Your task to perform on an android device: open app "McDonald's" Image 0: 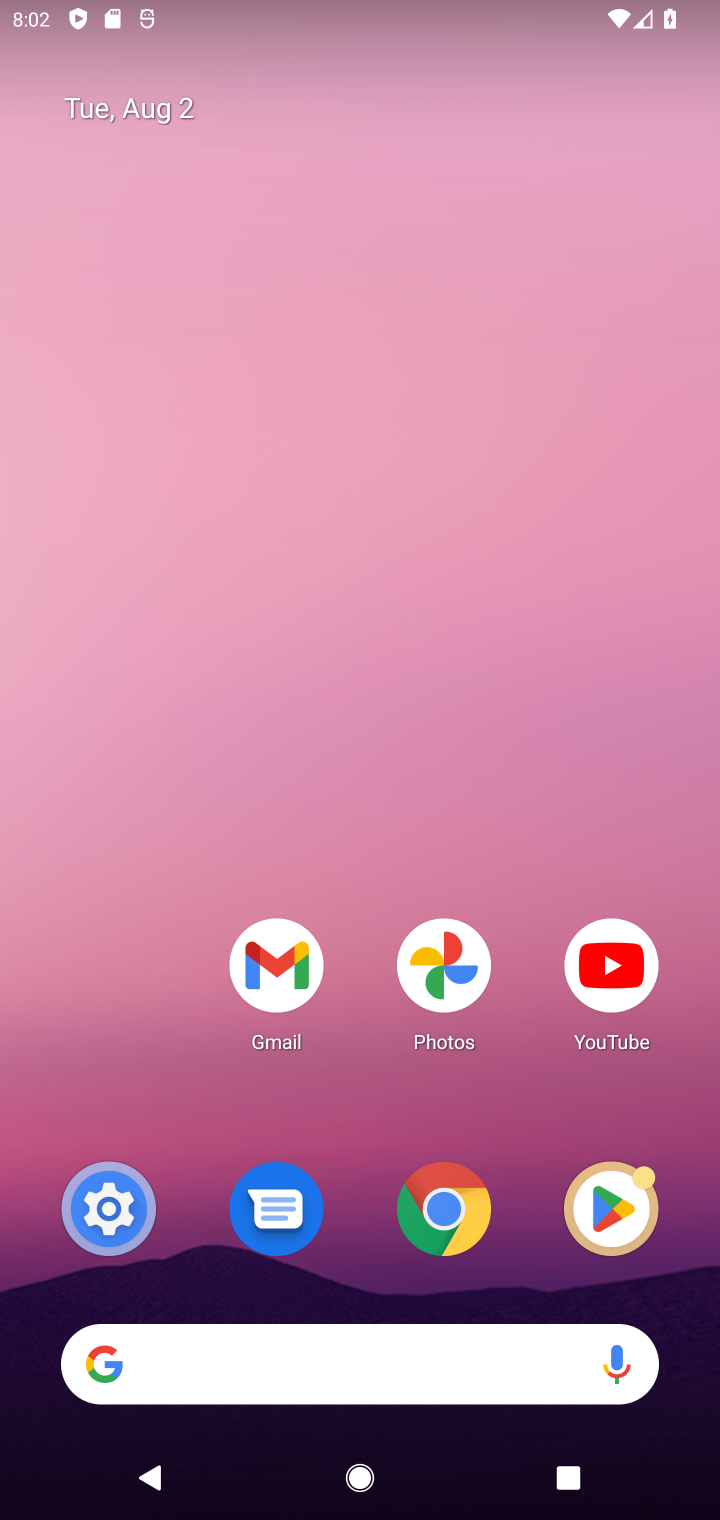
Step 0: drag from (364, 1291) to (379, 50)
Your task to perform on an android device: open app "McDonald's" Image 1: 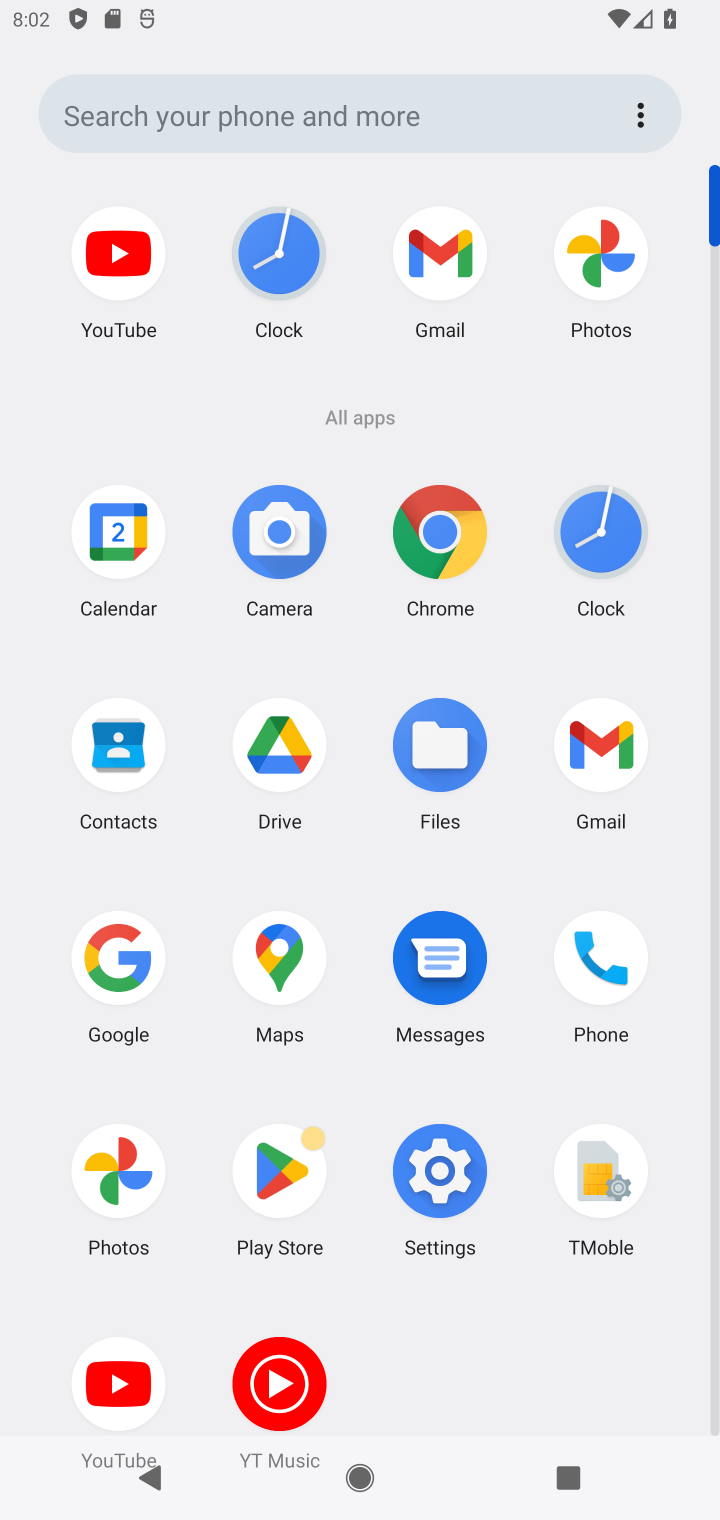
Step 1: click (268, 1219)
Your task to perform on an android device: open app "McDonald's" Image 2: 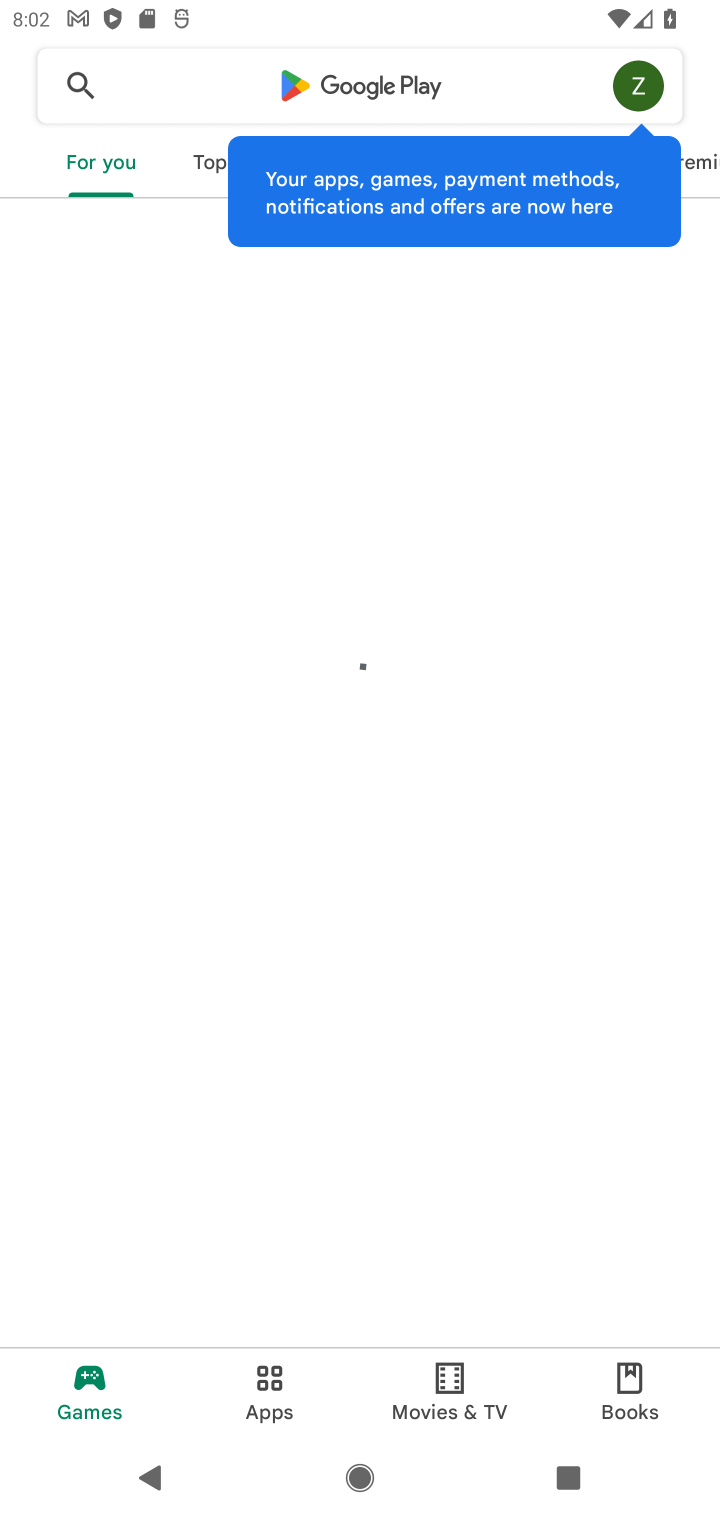
Step 2: click (339, 85)
Your task to perform on an android device: open app "McDonald's" Image 3: 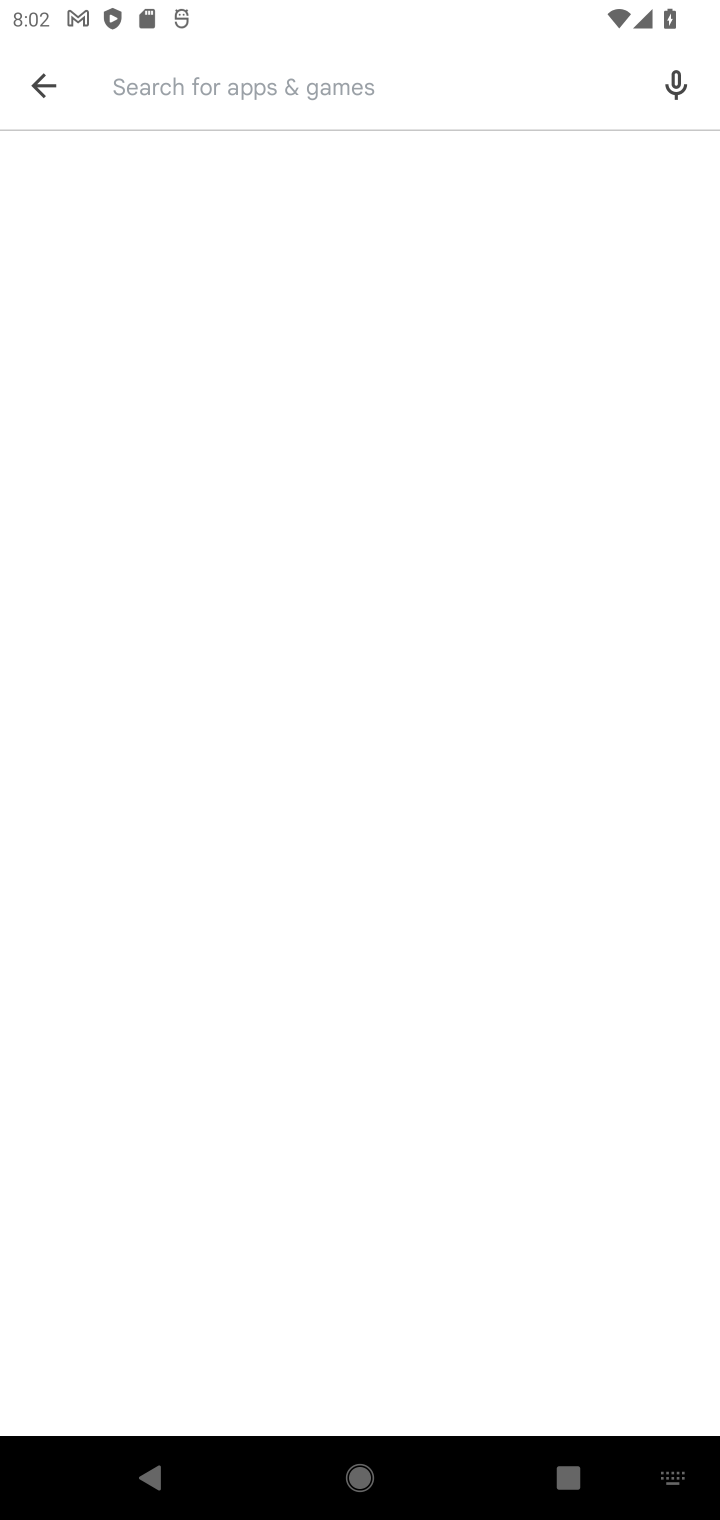
Step 3: type "McDonald's"
Your task to perform on an android device: open app "McDonald's" Image 4: 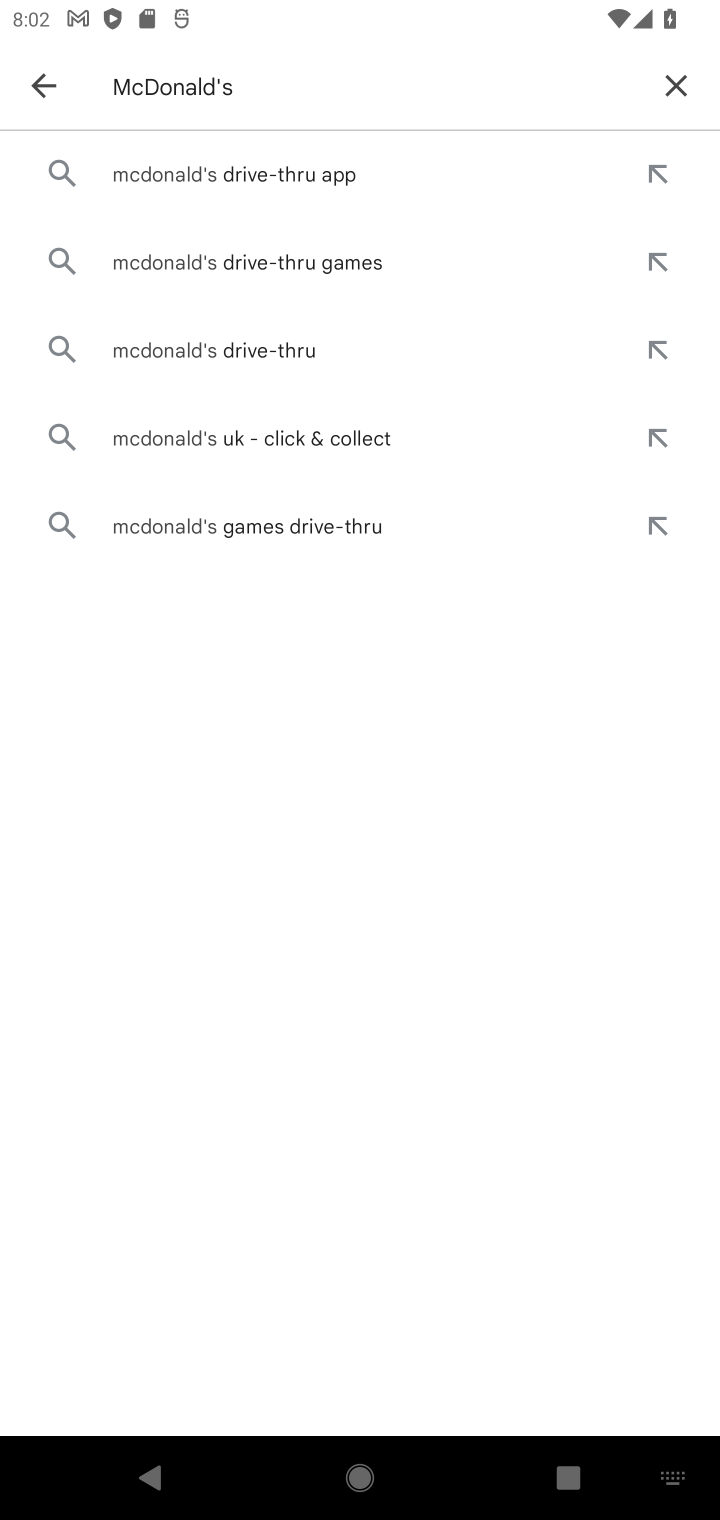
Step 4: click (287, 173)
Your task to perform on an android device: open app "McDonald's" Image 5: 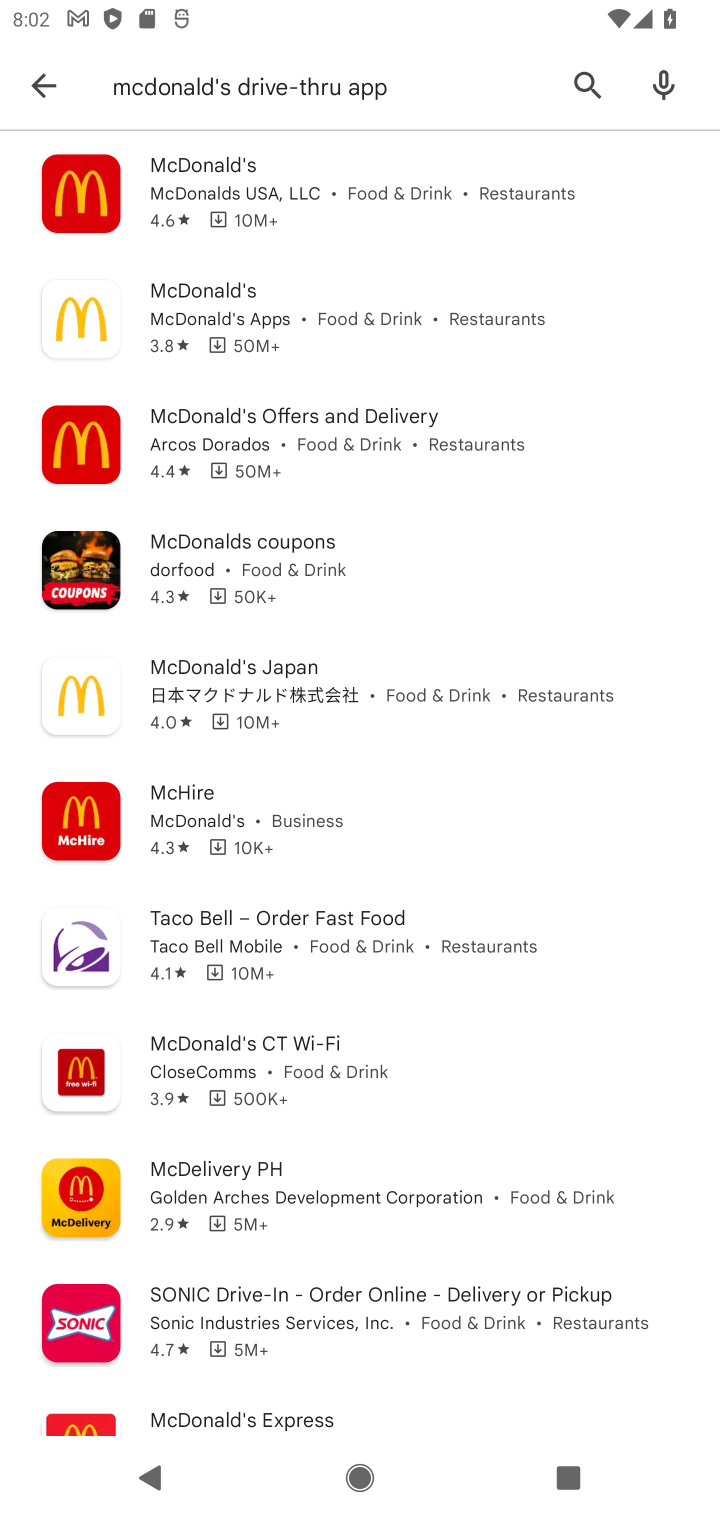
Step 5: click (314, 170)
Your task to perform on an android device: open app "McDonald's" Image 6: 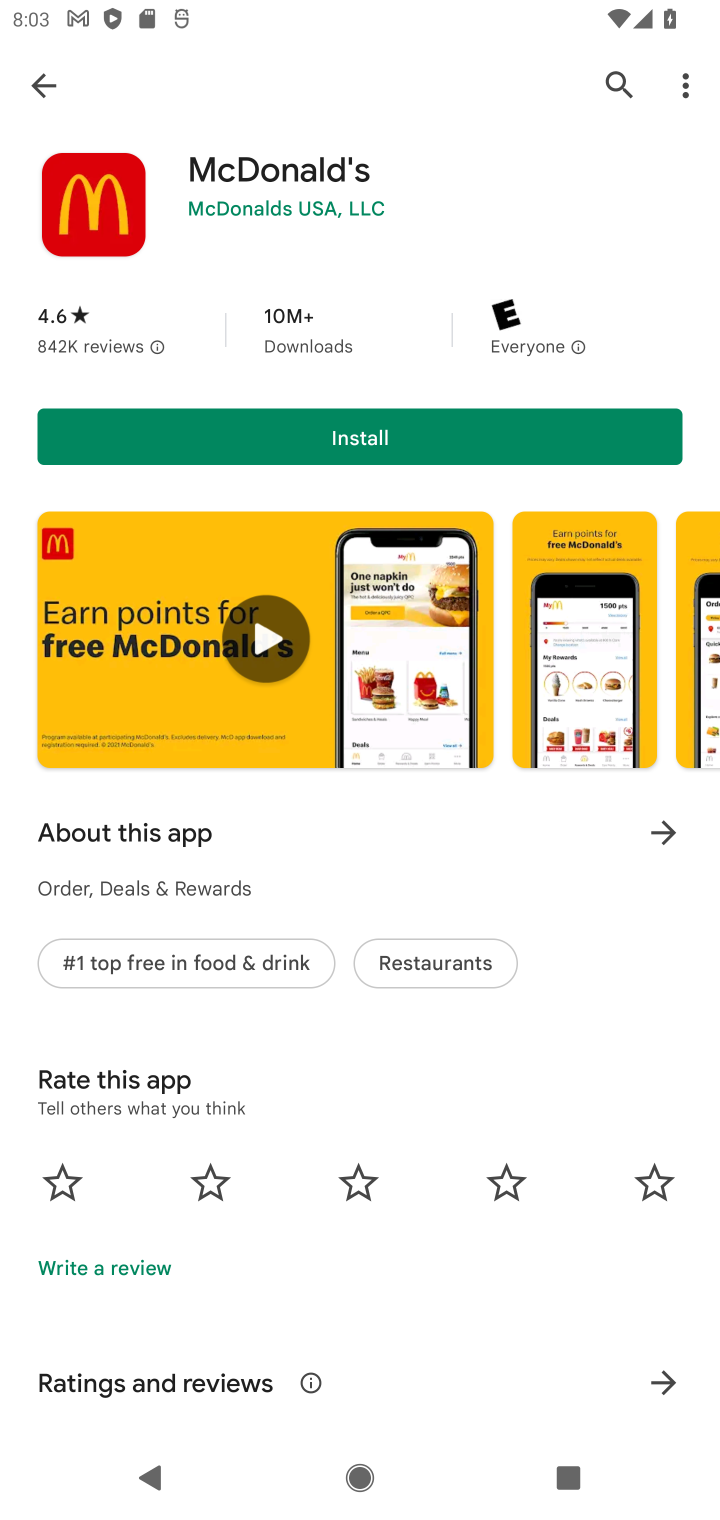
Step 6: task complete